Your task to perform on an android device: see creations saved in the google photos Image 0: 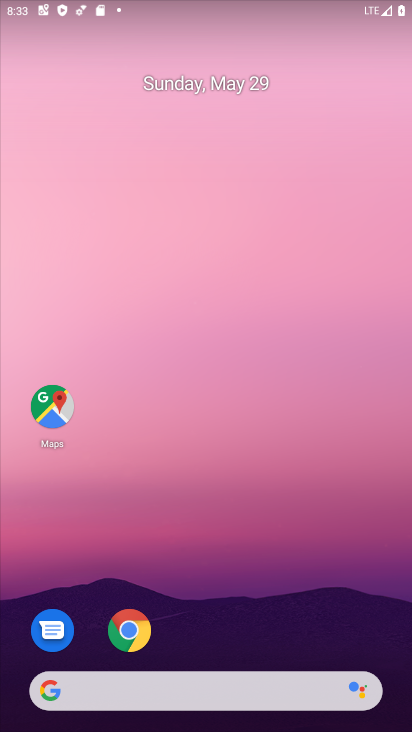
Step 0: drag from (207, 678) to (144, 159)
Your task to perform on an android device: see creations saved in the google photos Image 1: 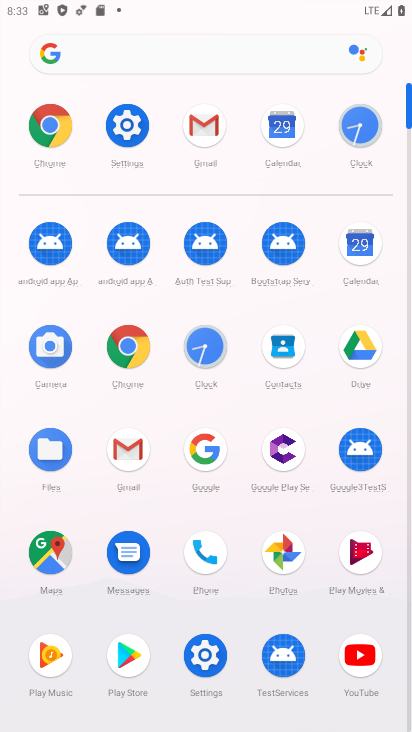
Step 1: click (281, 556)
Your task to perform on an android device: see creations saved in the google photos Image 2: 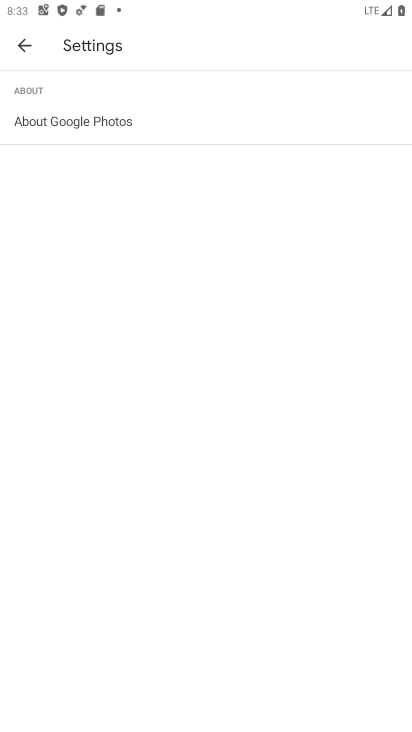
Step 2: click (29, 37)
Your task to perform on an android device: see creations saved in the google photos Image 3: 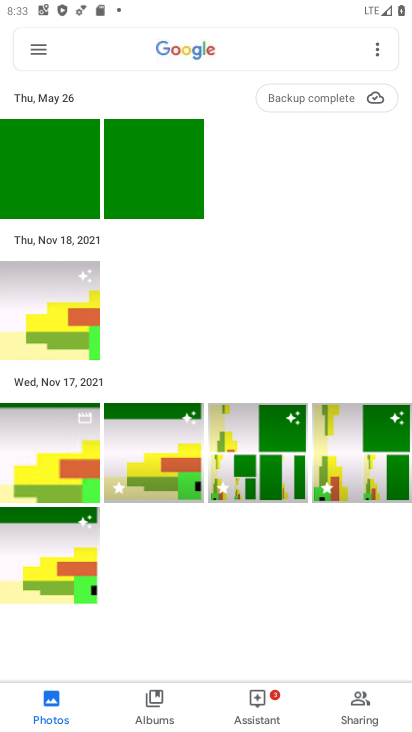
Step 3: click (127, 56)
Your task to perform on an android device: see creations saved in the google photos Image 4: 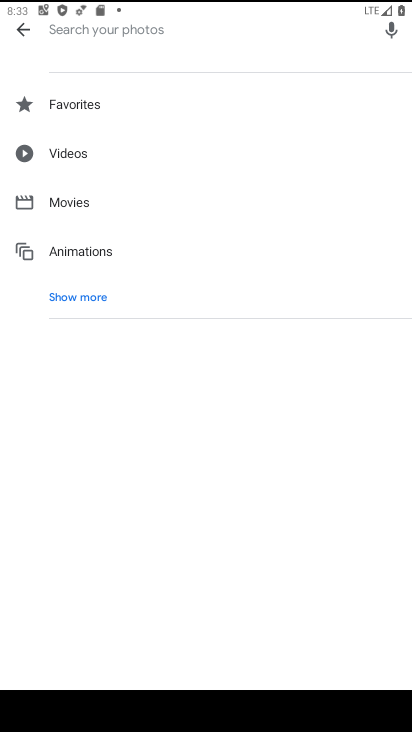
Step 4: click (78, 285)
Your task to perform on an android device: see creations saved in the google photos Image 5: 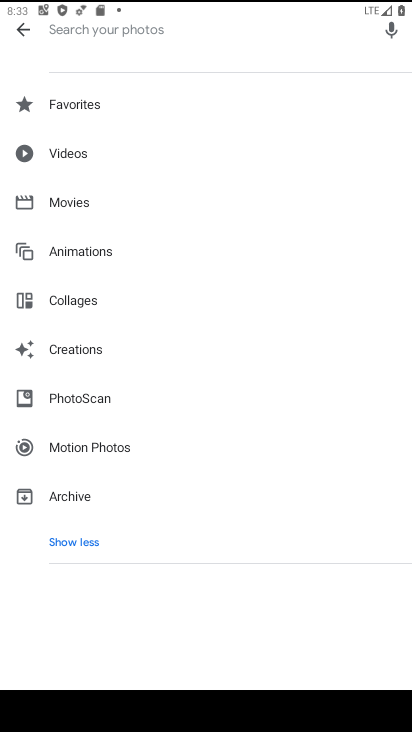
Step 5: click (63, 355)
Your task to perform on an android device: see creations saved in the google photos Image 6: 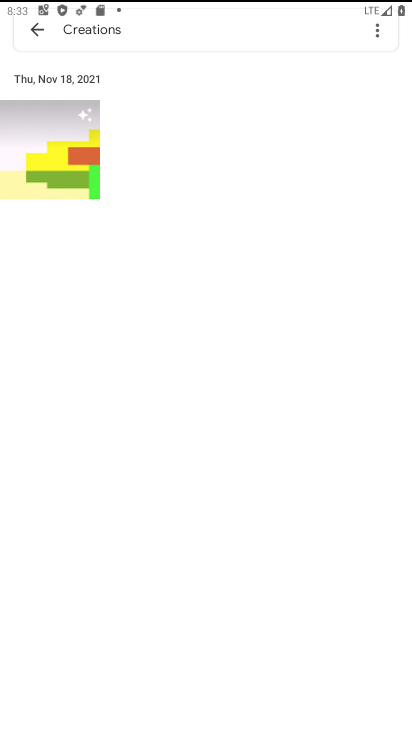
Step 6: task complete